Your task to perform on an android device: toggle data saver in the chrome app Image 0: 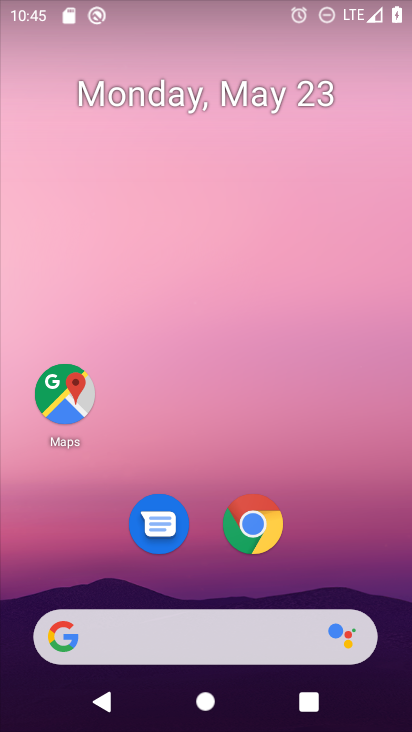
Step 0: click (249, 528)
Your task to perform on an android device: toggle data saver in the chrome app Image 1: 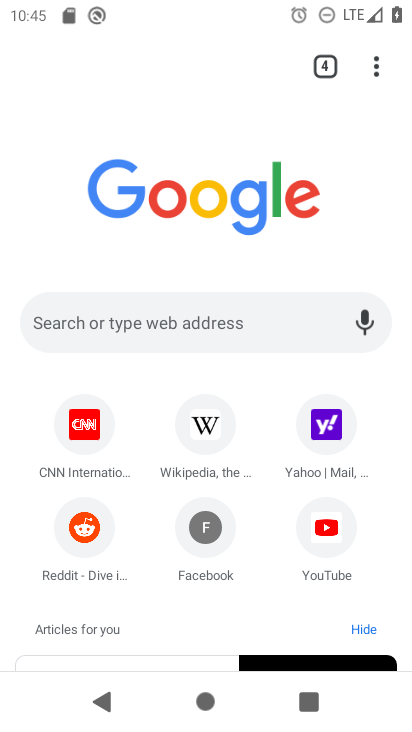
Step 1: click (372, 65)
Your task to perform on an android device: toggle data saver in the chrome app Image 2: 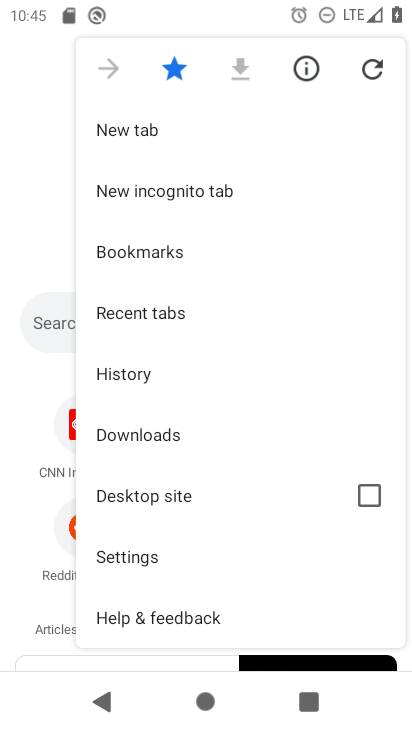
Step 2: click (167, 549)
Your task to perform on an android device: toggle data saver in the chrome app Image 3: 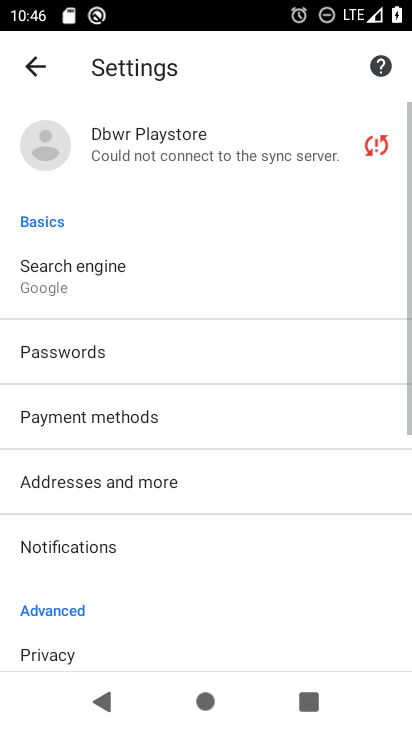
Step 3: drag from (176, 543) to (222, 158)
Your task to perform on an android device: toggle data saver in the chrome app Image 4: 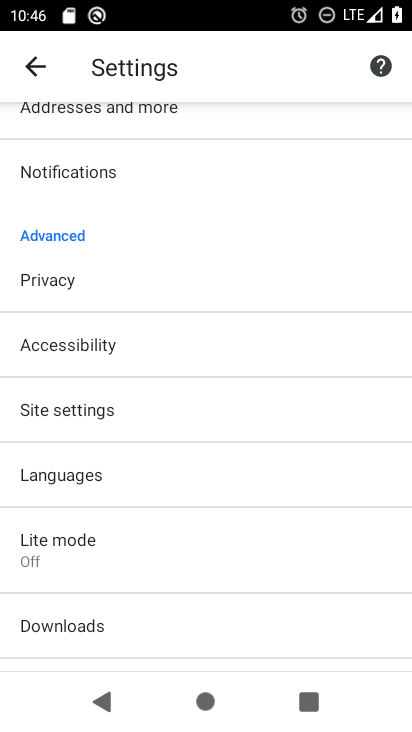
Step 4: click (116, 554)
Your task to perform on an android device: toggle data saver in the chrome app Image 5: 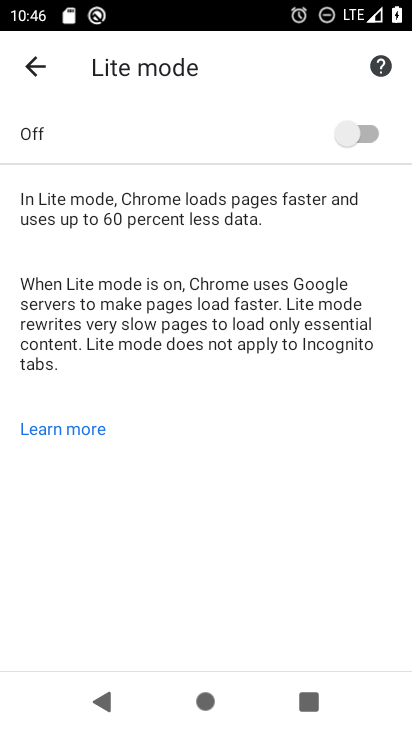
Step 5: click (356, 119)
Your task to perform on an android device: toggle data saver in the chrome app Image 6: 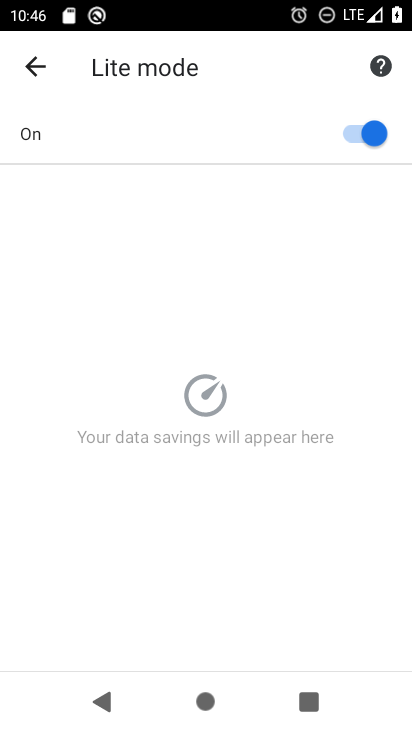
Step 6: task complete